Your task to perform on an android device: toggle sleep mode Image 0: 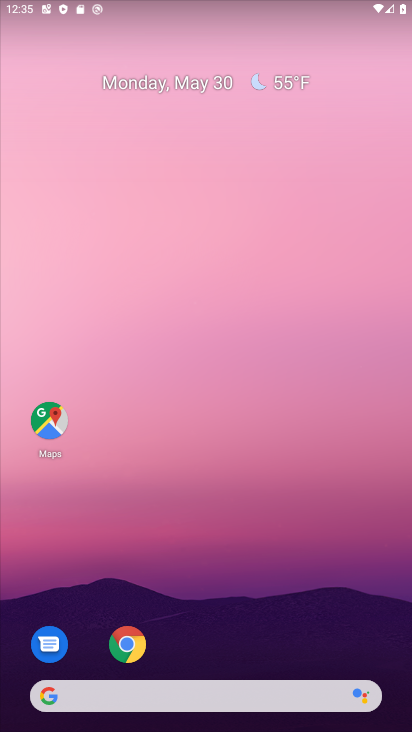
Step 0: drag from (260, 620) to (242, 286)
Your task to perform on an android device: toggle sleep mode Image 1: 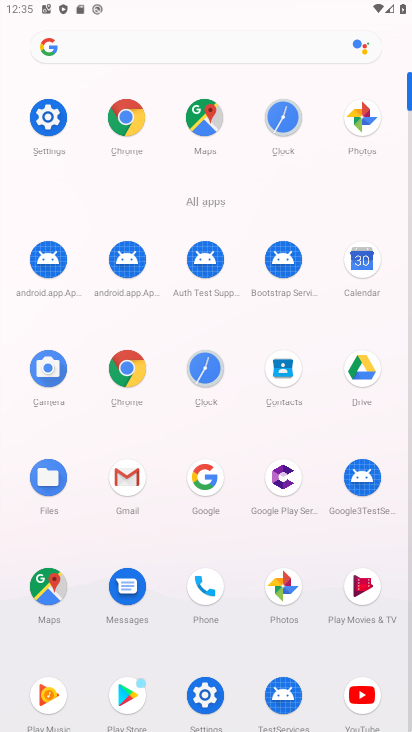
Step 1: click (49, 147)
Your task to perform on an android device: toggle sleep mode Image 2: 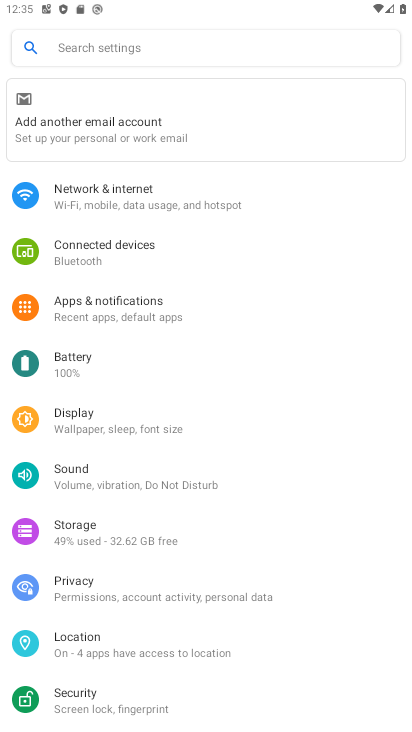
Step 2: click (200, 410)
Your task to perform on an android device: toggle sleep mode Image 3: 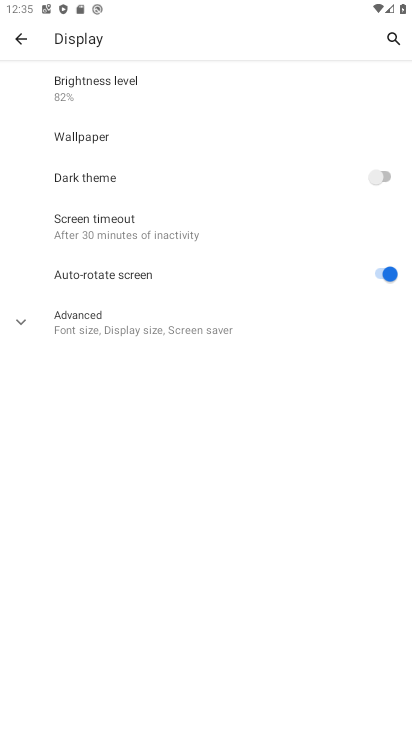
Step 3: click (194, 242)
Your task to perform on an android device: toggle sleep mode Image 4: 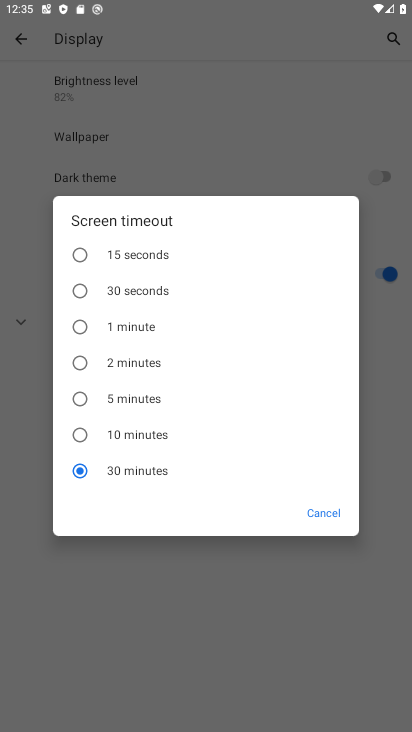
Step 4: click (194, 252)
Your task to perform on an android device: toggle sleep mode Image 5: 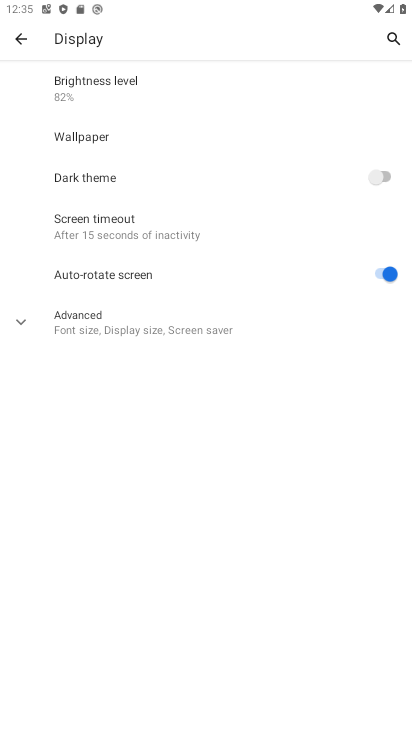
Step 5: task complete